Your task to perform on an android device: Open my contact list Image 0: 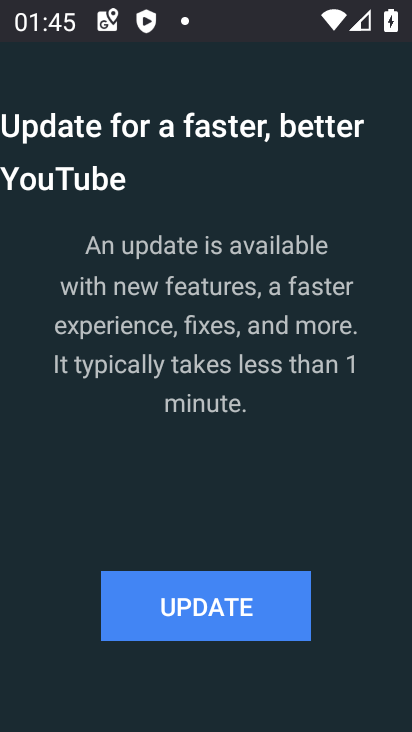
Step 0: press home button
Your task to perform on an android device: Open my contact list Image 1: 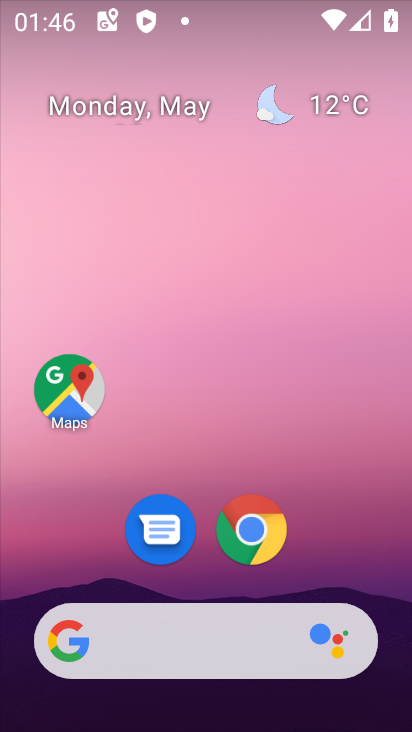
Step 1: drag from (394, 622) to (251, 33)
Your task to perform on an android device: Open my contact list Image 2: 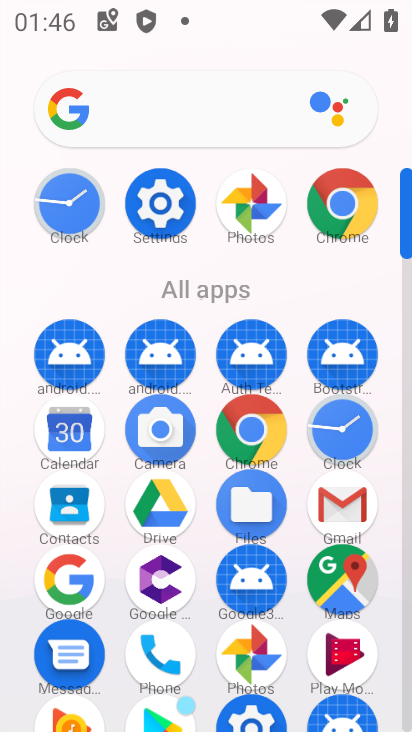
Step 2: click (406, 684)
Your task to perform on an android device: Open my contact list Image 3: 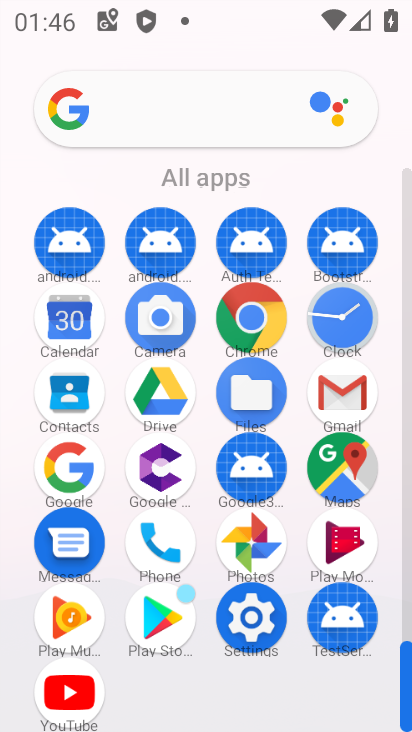
Step 3: click (73, 391)
Your task to perform on an android device: Open my contact list Image 4: 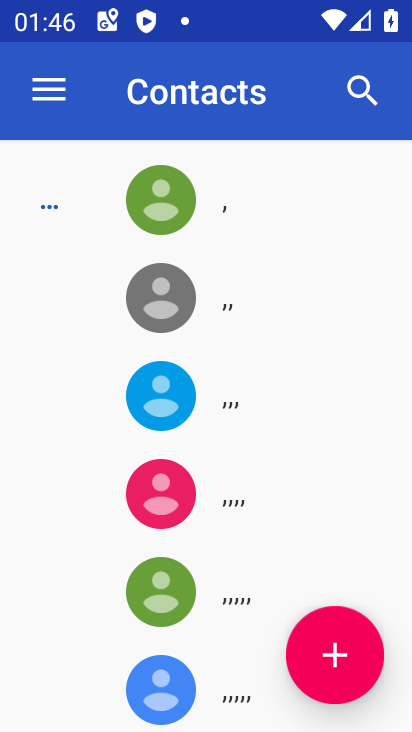
Step 4: task complete